Your task to perform on an android device: check battery use Image 0: 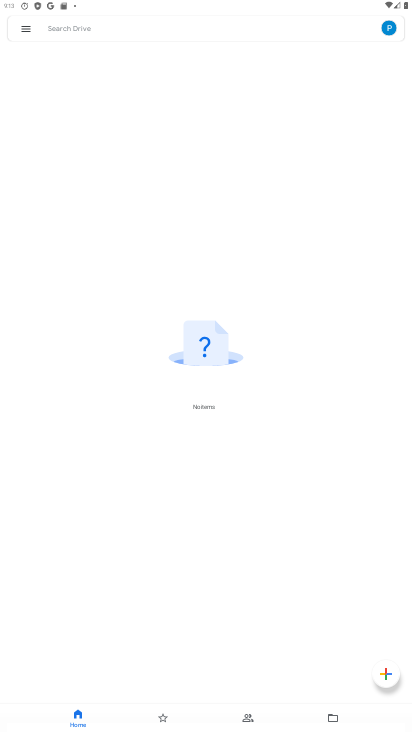
Step 0: press home button
Your task to perform on an android device: check battery use Image 1: 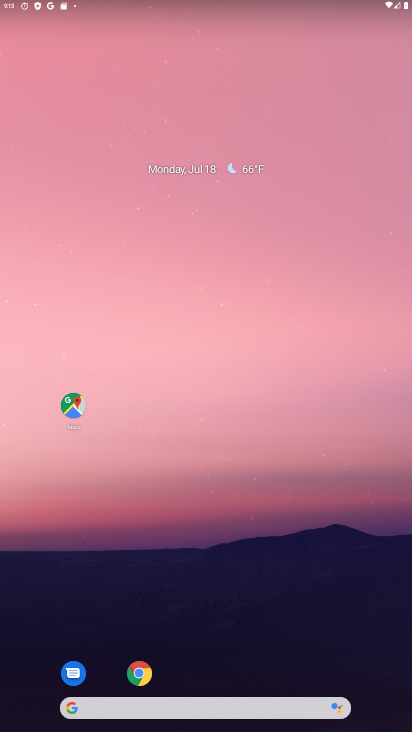
Step 1: drag from (216, 682) to (210, 132)
Your task to perform on an android device: check battery use Image 2: 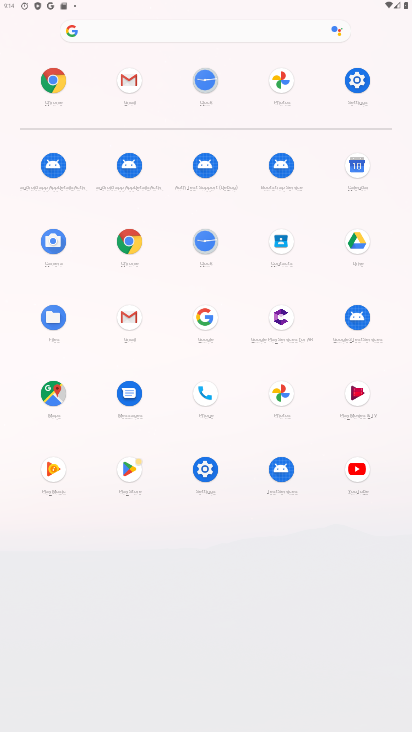
Step 2: click (361, 81)
Your task to perform on an android device: check battery use Image 3: 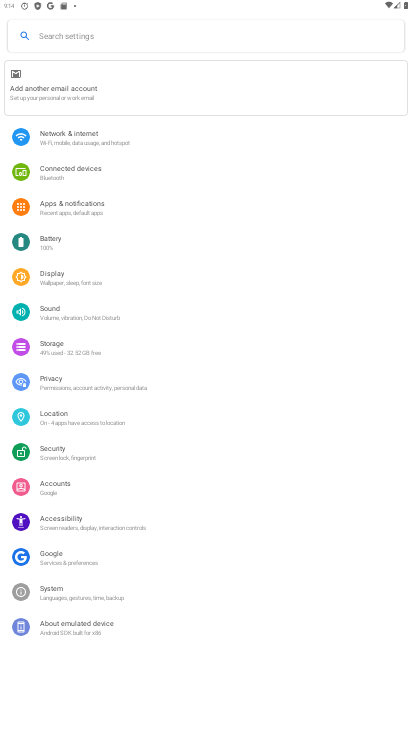
Step 3: click (54, 244)
Your task to perform on an android device: check battery use Image 4: 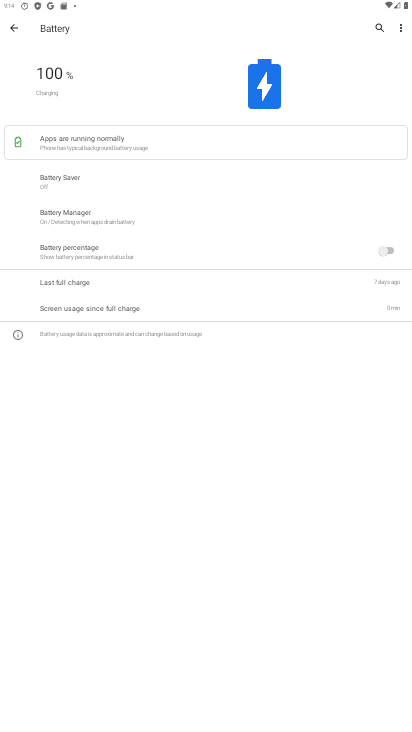
Step 4: click (398, 30)
Your task to perform on an android device: check battery use Image 5: 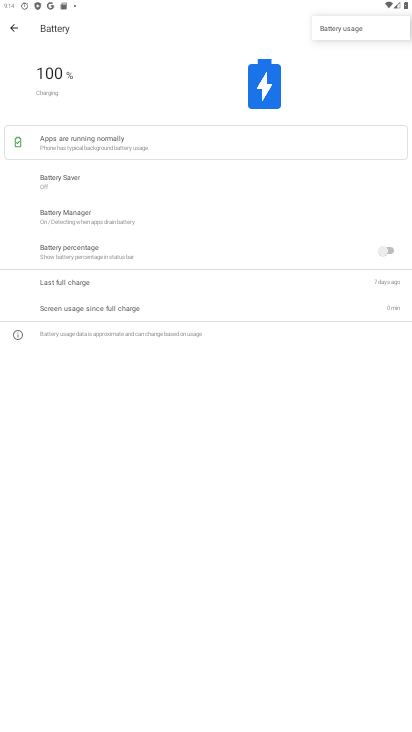
Step 5: click (329, 28)
Your task to perform on an android device: check battery use Image 6: 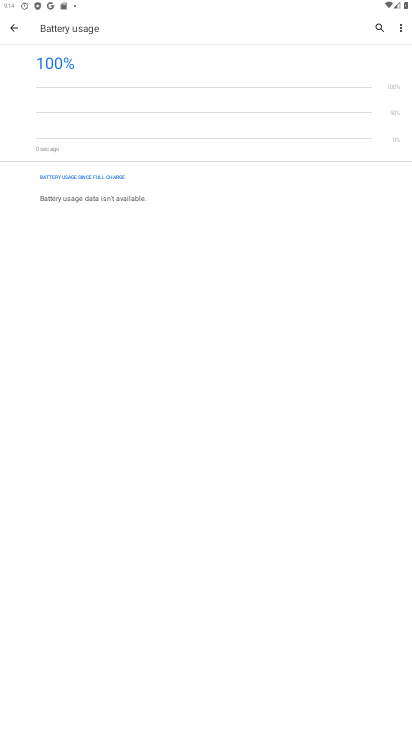
Step 6: task complete